Your task to perform on an android device: Go to calendar. Show me events next week Image 0: 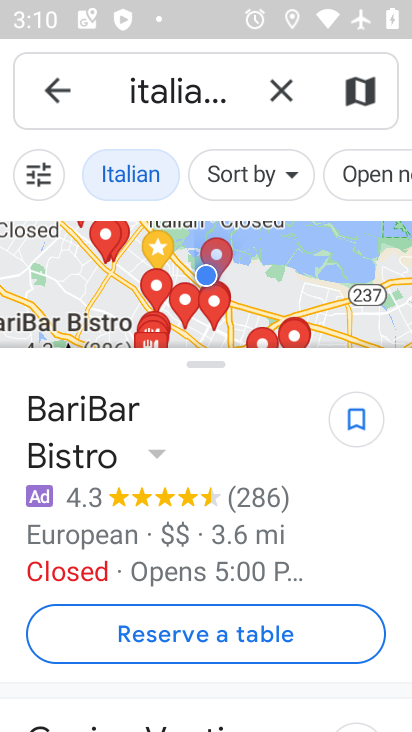
Step 0: press home button
Your task to perform on an android device: Go to calendar. Show me events next week Image 1: 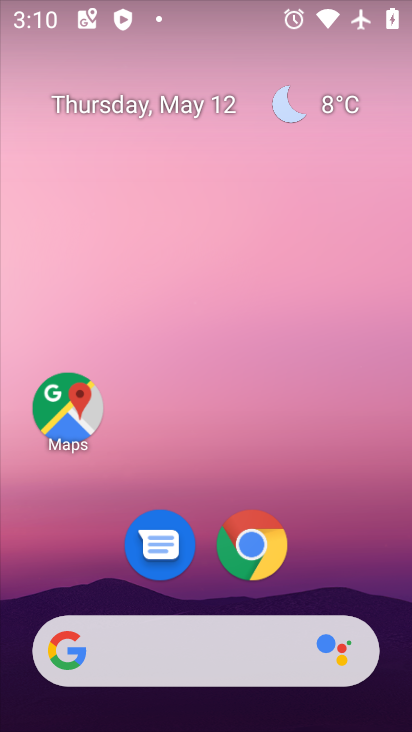
Step 1: drag from (389, 630) to (269, 136)
Your task to perform on an android device: Go to calendar. Show me events next week Image 2: 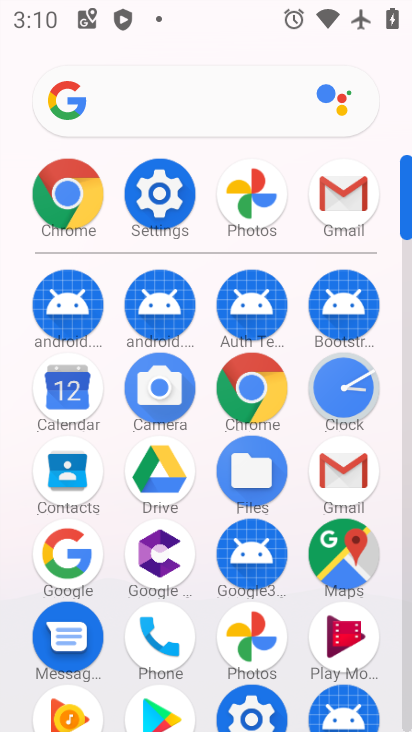
Step 2: click (65, 396)
Your task to perform on an android device: Go to calendar. Show me events next week Image 3: 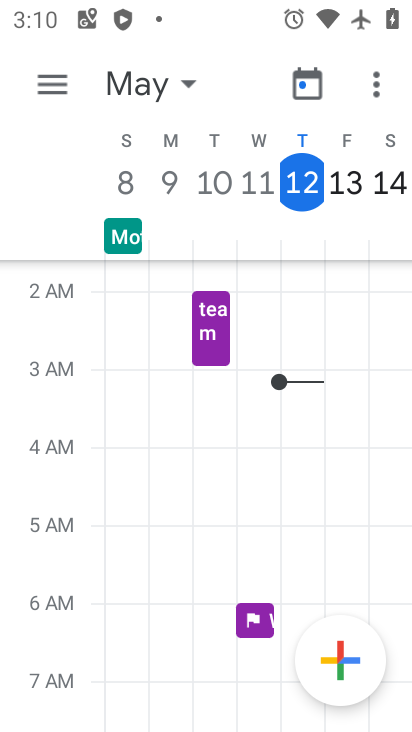
Step 3: click (178, 83)
Your task to perform on an android device: Go to calendar. Show me events next week Image 4: 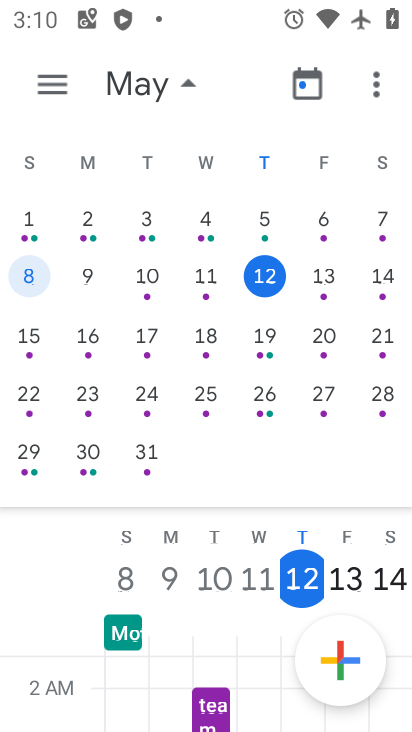
Step 4: click (31, 337)
Your task to perform on an android device: Go to calendar. Show me events next week Image 5: 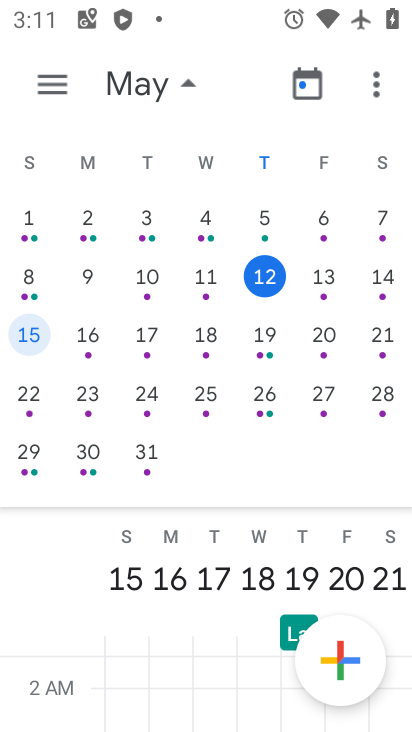
Step 5: task complete